Your task to perform on an android device: When is my next appointment? Image 0: 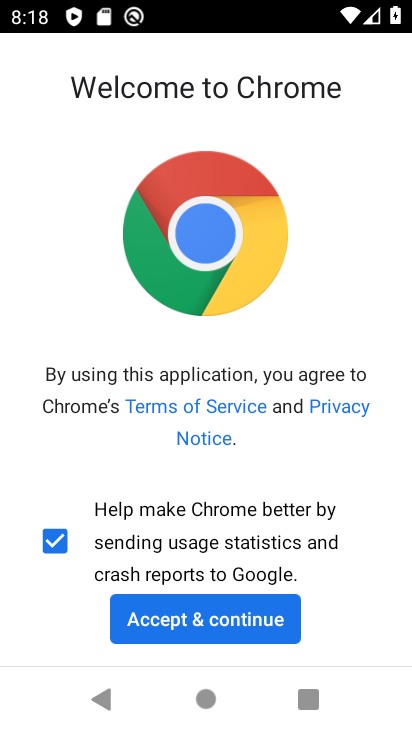
Step 0: press back button
Your task to perform on an android device: When is my next appointment? Image 1: 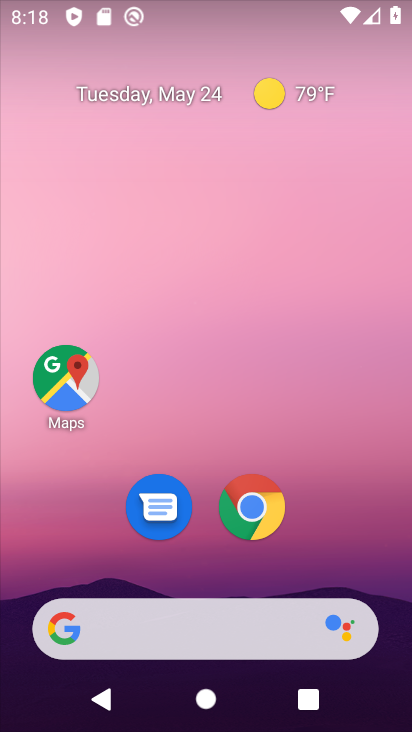
Step 1: drag from (251, 689) to (285, 218)
Your task to perform on an android device: When is my next appointment? Image 2: 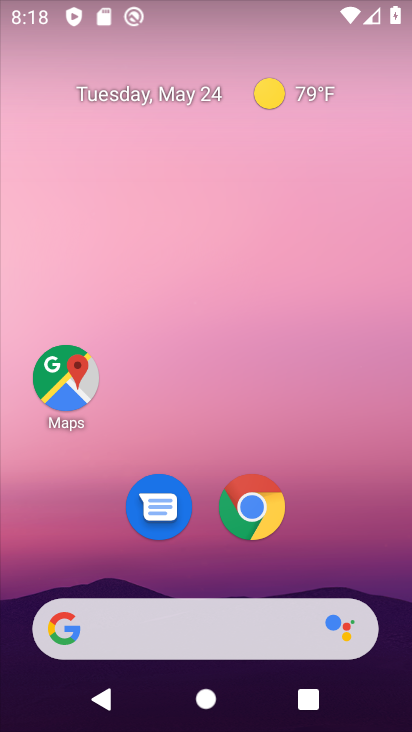
Step 2: drag from (262, 670) to (261, 255)
Your task to perform on an android device: When is my next appointment? Image 3: 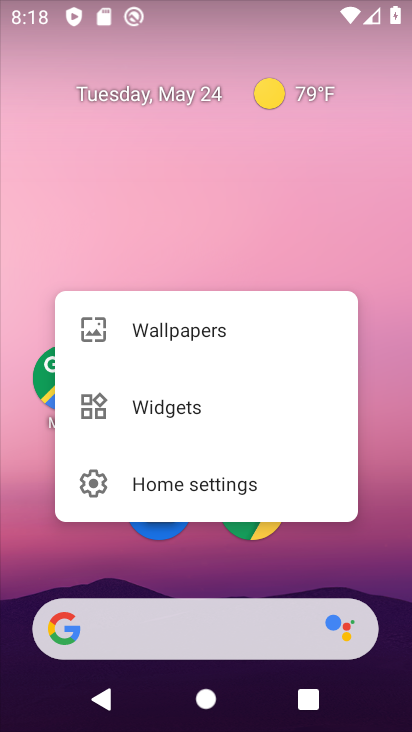
Step 3: drag from (322, 600) to (253, 157)
Your task to perform on an android device: When is my next appointment? Image 4: 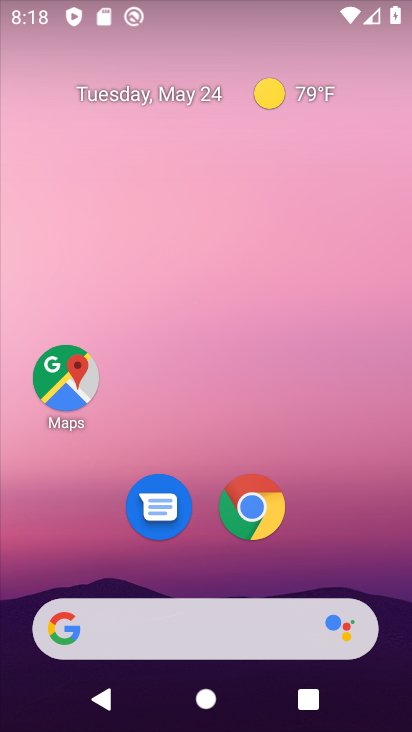
Step 4: drag from (269, 602) to (187, 225)
Your task to perform on an android device: When is my next appointment? Image 5: 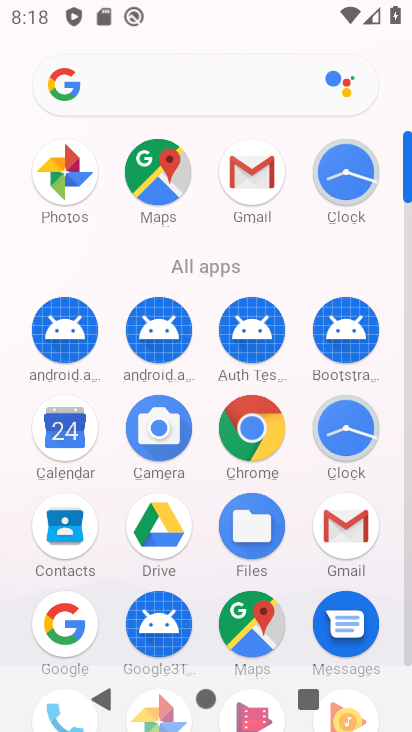
Step 5: click (60, 437)
Your task to perform on an android device: When is my next appointment? Image 6: 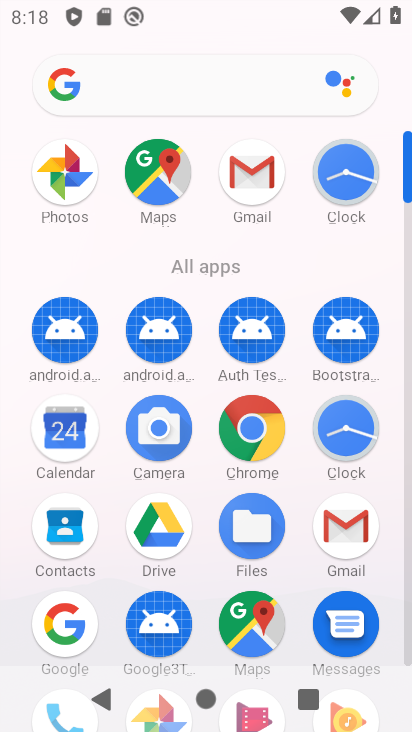
Step 6: click (61, 432)
Your task to perform on an android device: When is my next appointment? Image 7: 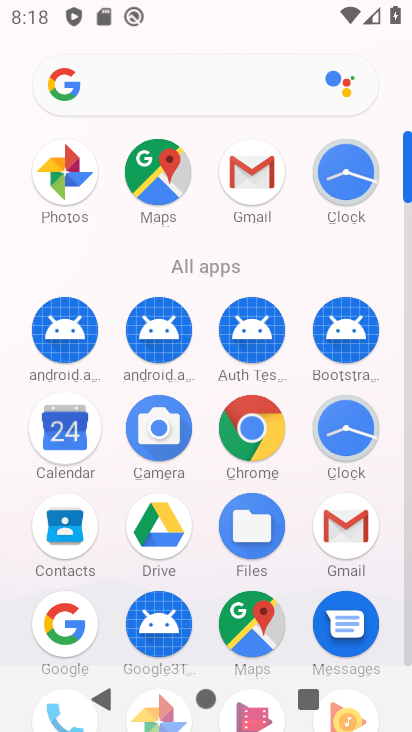
Step 7: click (62, 430)
Your task to perform on an android device: When is my next appointment? Image 8: 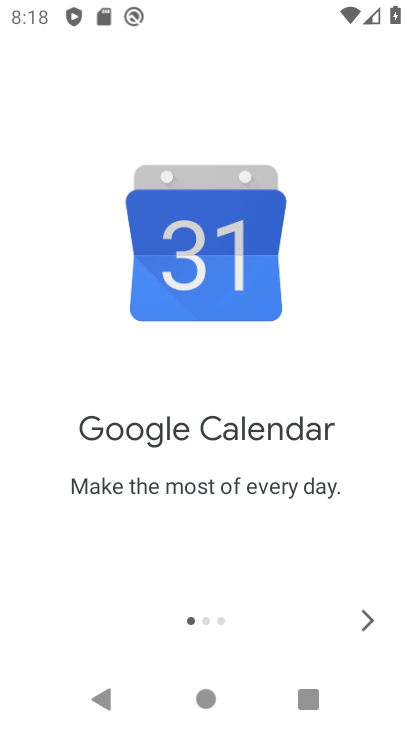
Step 8: click (364, 622)
Your task to perform on an android device: When is my next appointment? Image 9: 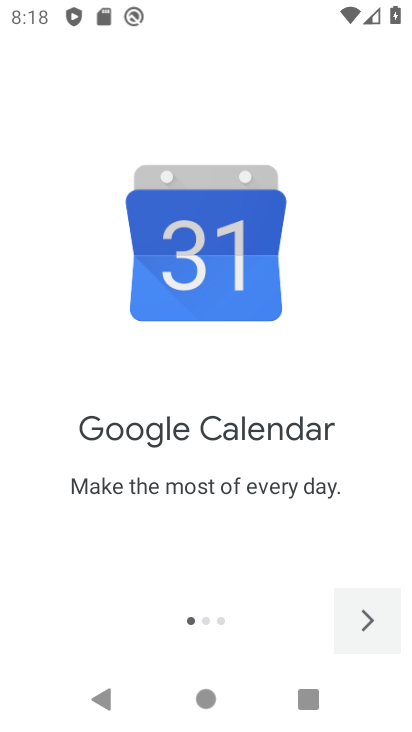
Step 9: click (367, 621)
Your task to perform on an android device: When is my next appointment? Image 10: 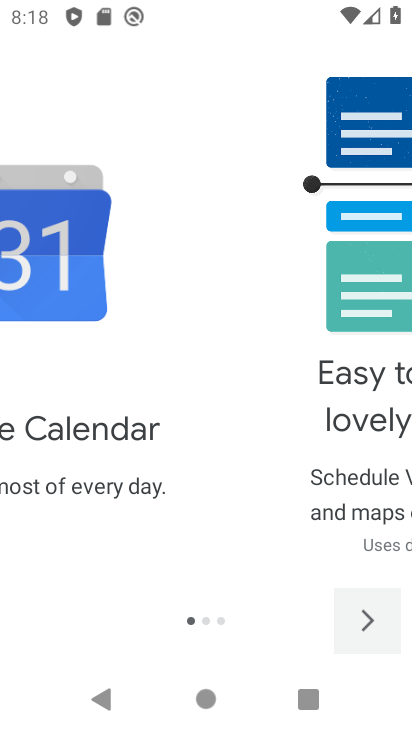
Step 10: click (367, 621)
Your task to perform on an android device: When is my next appointment? Image 11: 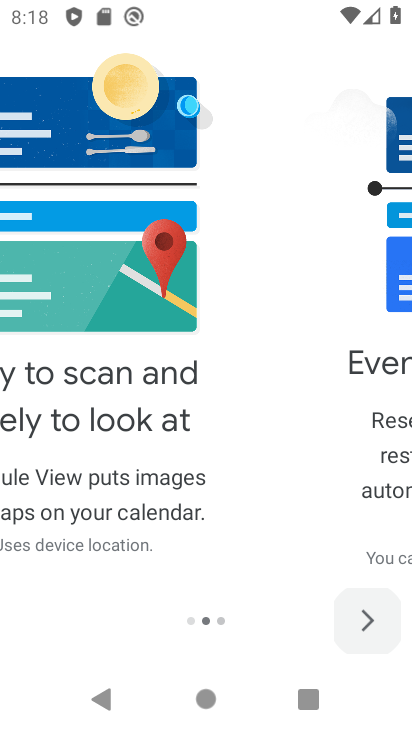
Step 11: click (370, 620)
Your task to perform on an android device: When is my next appointment? Image 12: 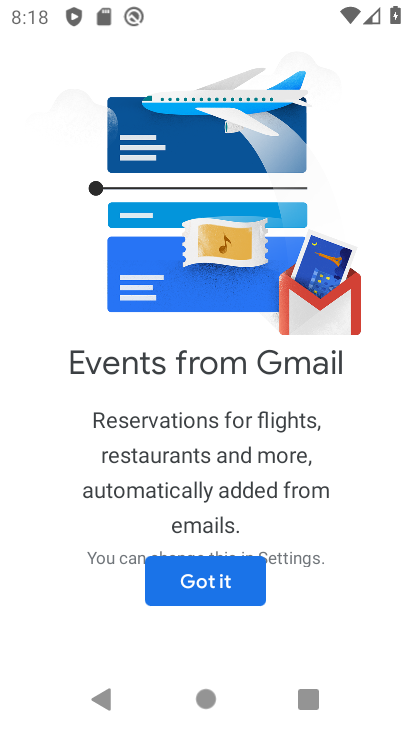
Step 12: click (370, 620)
Your task to perform on an android device: When is my next appointment? Image 13: 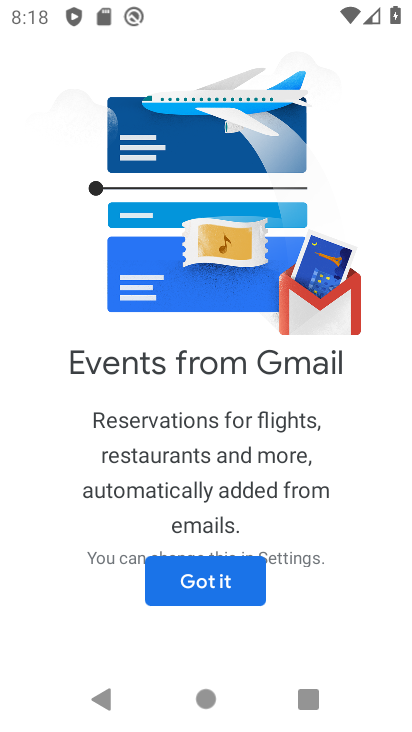
Step 13: click (363, 612)
Your task to perform on an android device: When is my next appointment? Image 14: 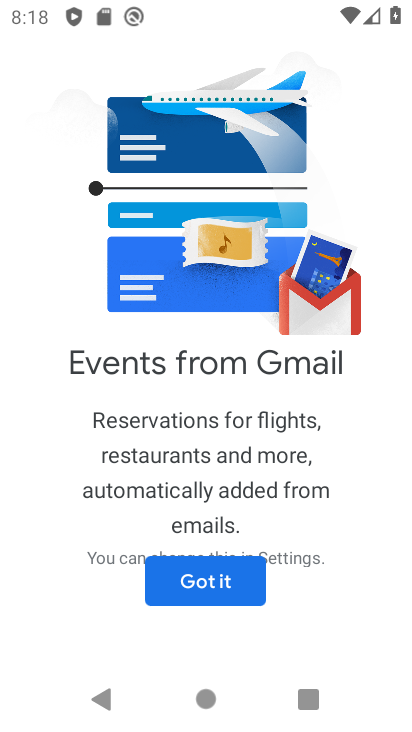
Step 14: click (361, 611)
Your task to perform on an android device: When is my next appointment? Image 15: 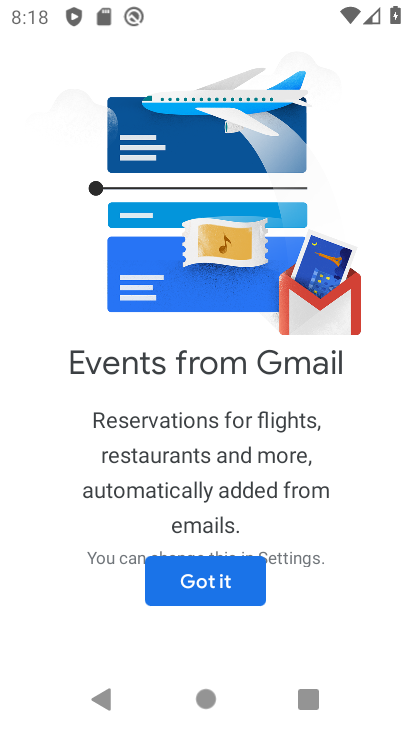
Step 15: click (237, 576)
Your task to perform on an android device: When is my next appointment? Image 16: 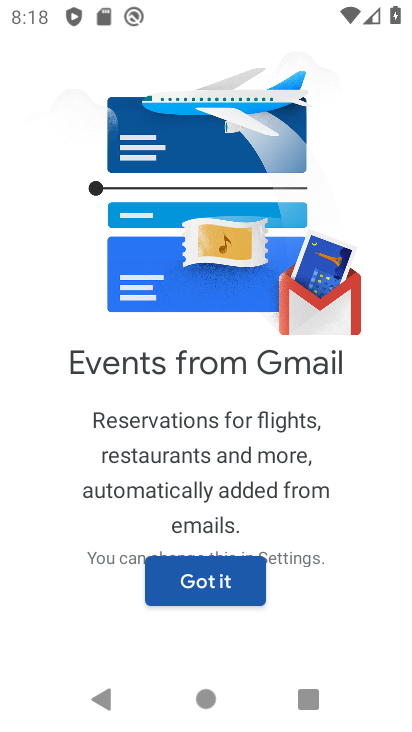
Step 16: click (239, 577)
Your task to perform on an android device: When is my next appointment? Image 17: 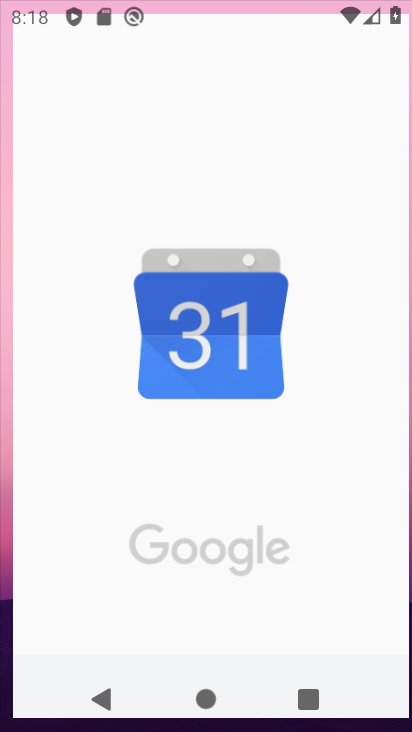
Step 17: click (239, 577)
Your task to perform on an android device: When is my next appointment? Image 18: 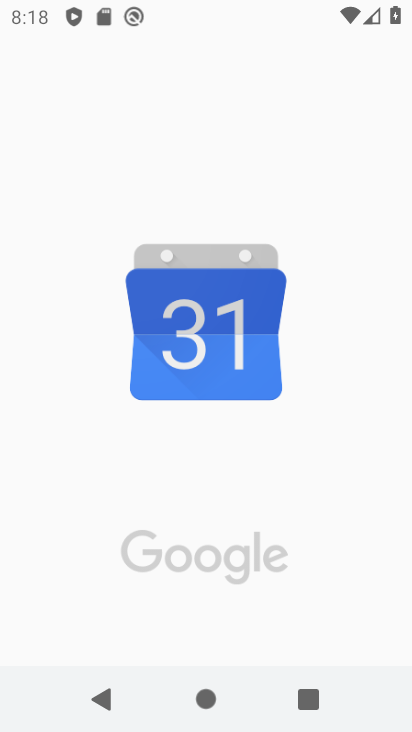
Step 18: click (235, 574)
Your task to perform on an android device: When is my next appointment? Image 19: 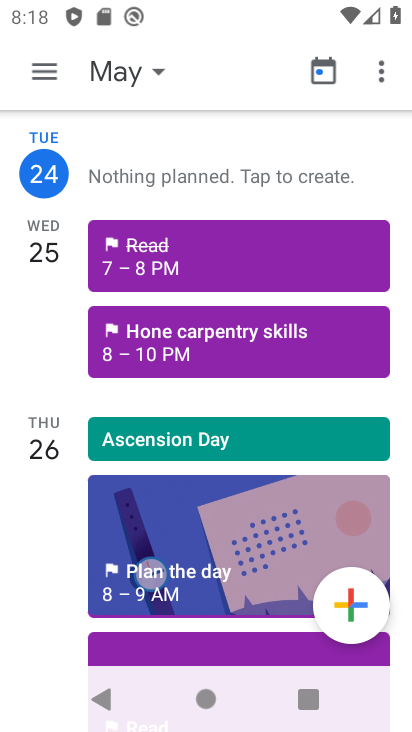
Step 19: press back button
Your task to perform on an android device: When is my next appointment? Image 20: 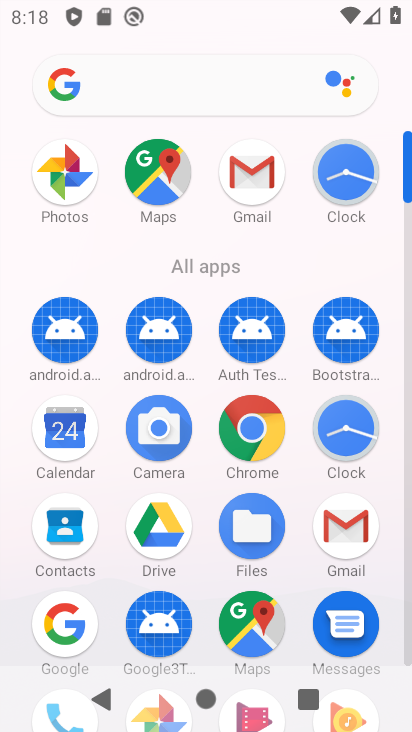
Step 20: click (45, 445)
Your task to perform on an android device: When is my next appointment? Image 21: 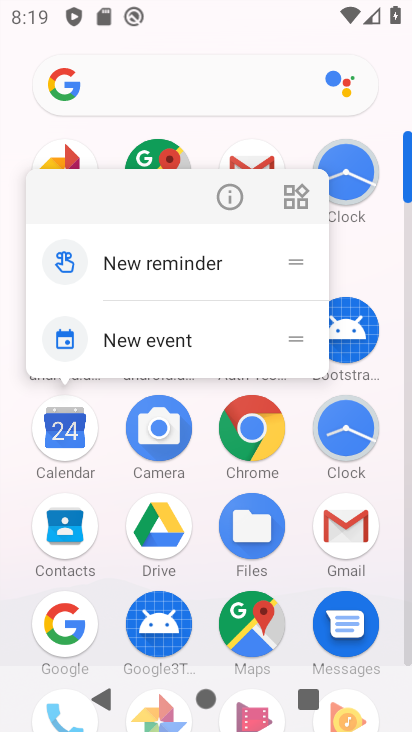
Step 21: click (68, 420)
Your task to perform on an android device: When is my next appointment? Image 22: 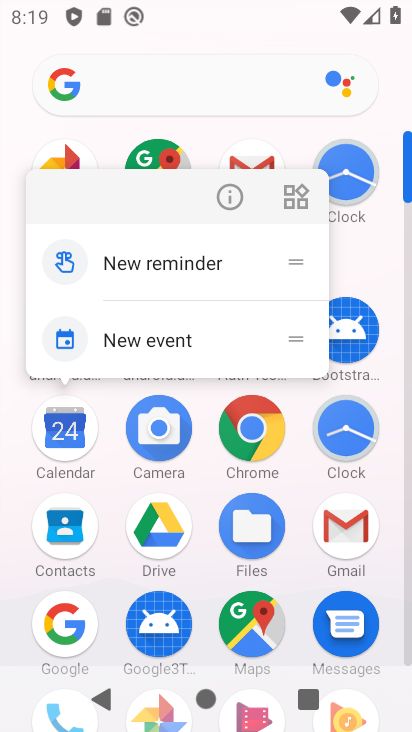
Step 22: click (73, 433)
Your task to perform on an android device: When is my next appointment? Image 23: 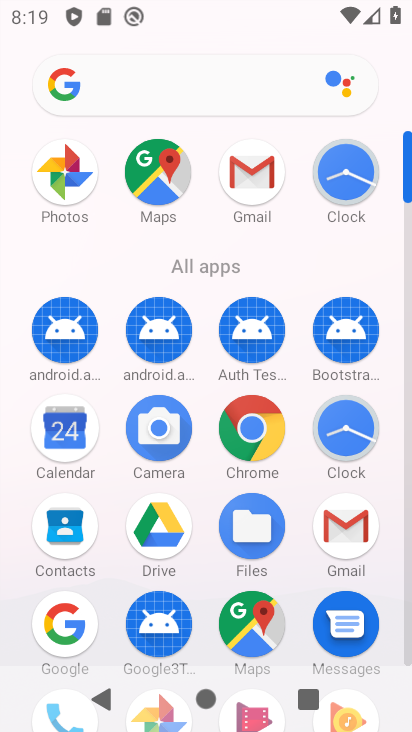
Step 23: click (74, 435)
Your task to perform on an android device: When is my next appointment? Image 24: 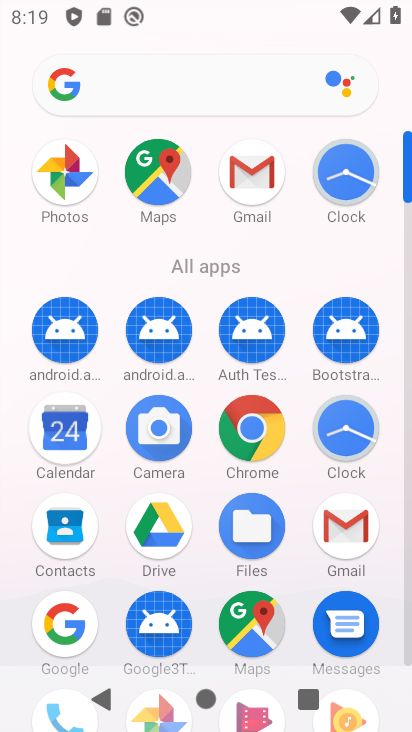
Step 24: click (79, 437)
Your task to perform on an android device: When is my next appointment? Image 25: 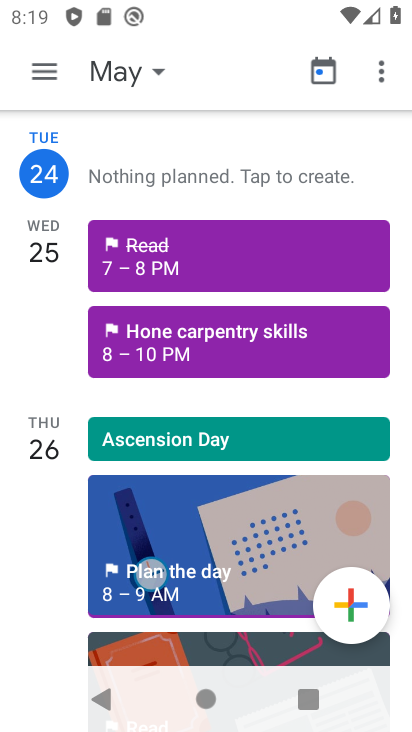
Step 25: task complete